Your task to perform on an android device: What's the weather going to be tomorrow? Image 0: 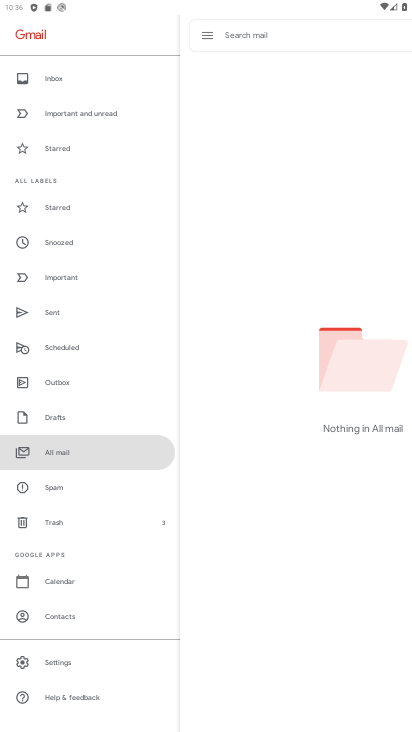
Step 0: press home button
Your task to perform on an android device: What's the weather going to be tomorrow? Image 1: 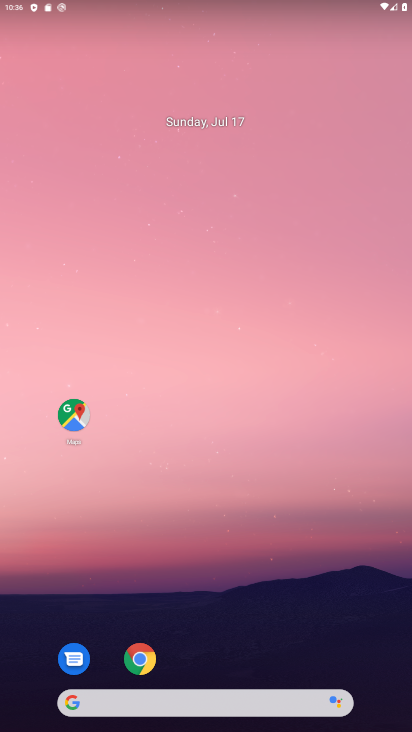
Step 1: drag from (275, 647) to (83, 0)
Your task to perform on an android device: What's the weather going to be tomorrow? Image 2: 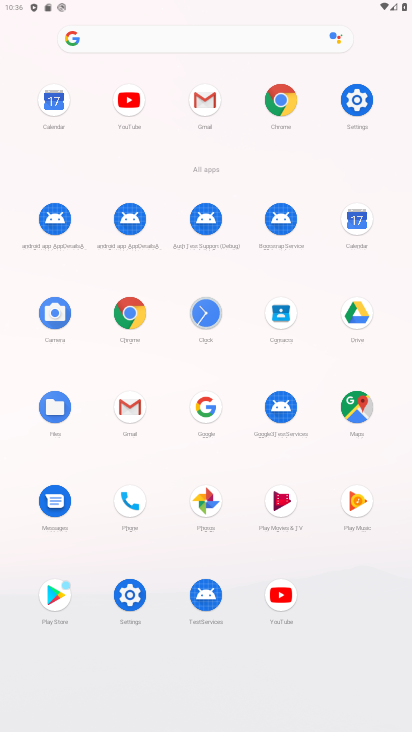
Step 2: click (124, 307)
Your task to perform on an android device: What's the weather going to be tomorrow? Image 3: 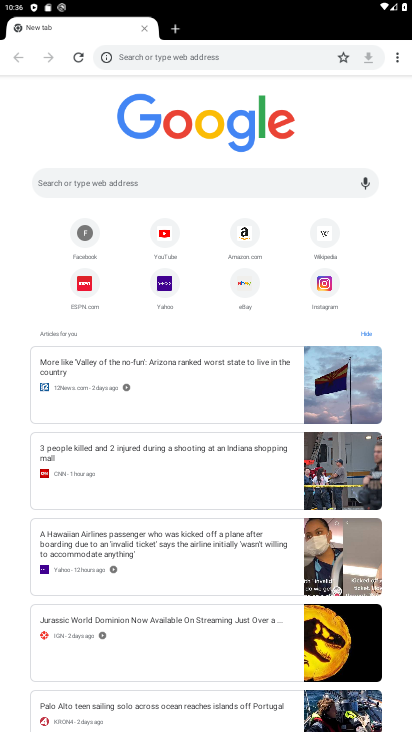
Step 3: click (186, 193)
Your task to perform on an android device: What's the weather going to be tomorrow? Image 4: 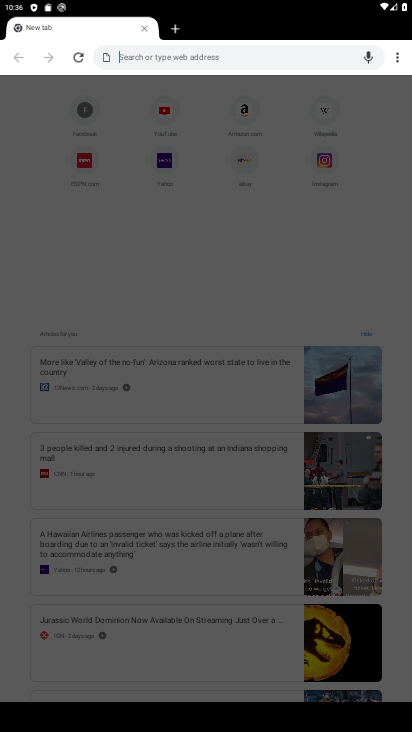
Step 4: type "weather"
Your task to perform on an android device: What's the weather going to be tomorrow? Image 5: 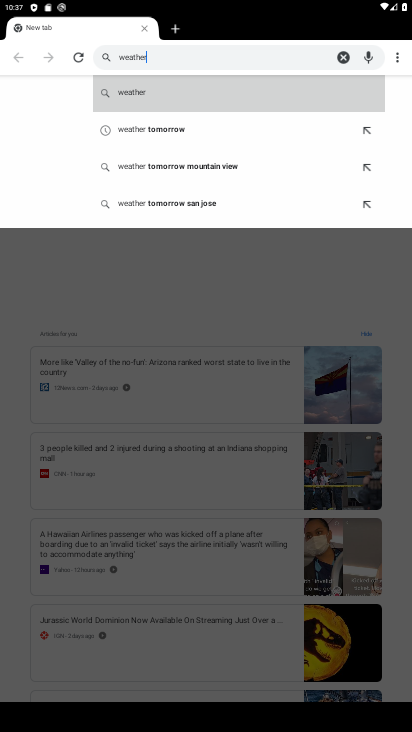
Step 5: click (127, 91)
Your task to perform on an android device: What's the weather going to be tomorrow? Image 6: 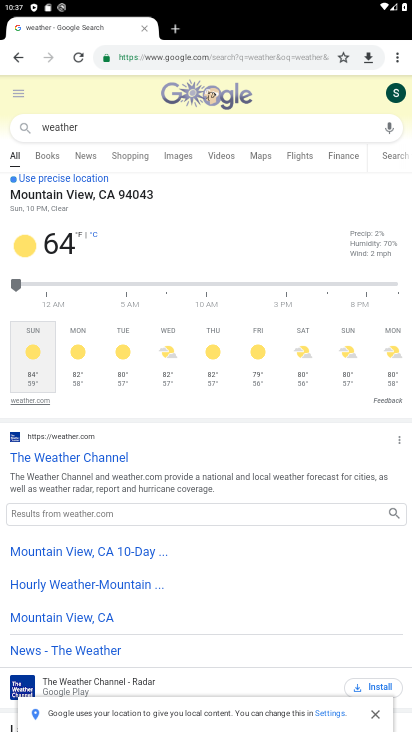
Step 6: click (71, 357)
Your task to perform on an android device: What's the weather going to be tomorrow? Image 7: 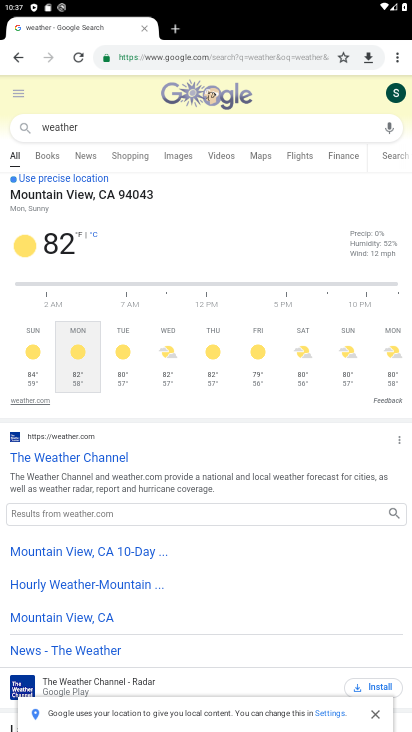
Step 7: task complete